Your task to perform on an android device: clear history in the chrome app Image 0: 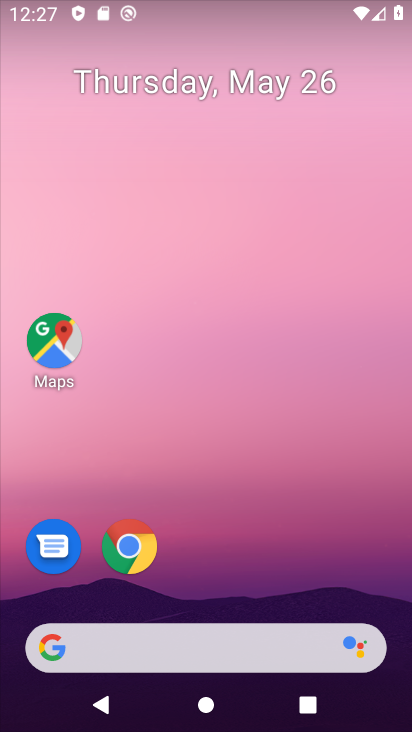
Step 0: drag from (394, 649) to (263, 66)
Your task to perform on an android device: clear history in the chrome app Image 1: 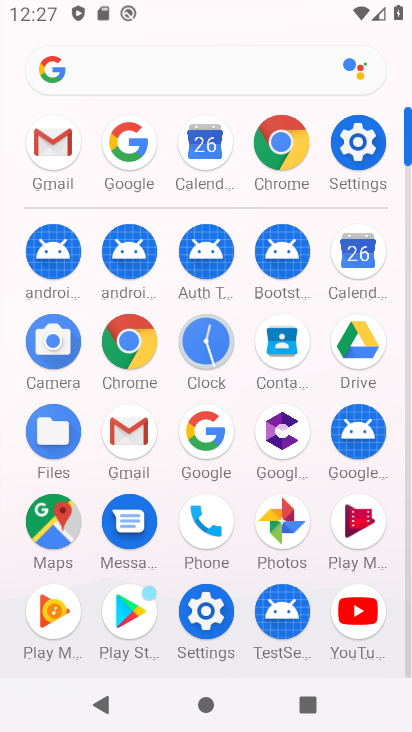
Step 1: click (129, 320)
Your task to perform on an android device: clear history in the chrome app Image 2: 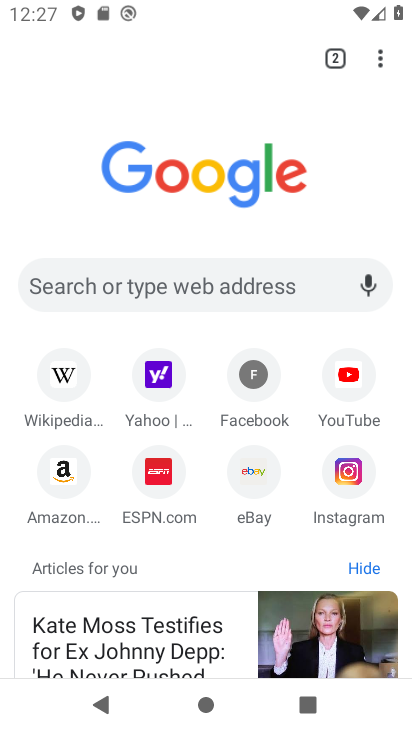
Step 2: click (380, 56)
Your task to perform on an android device: clear history in the chrome app Image 3: 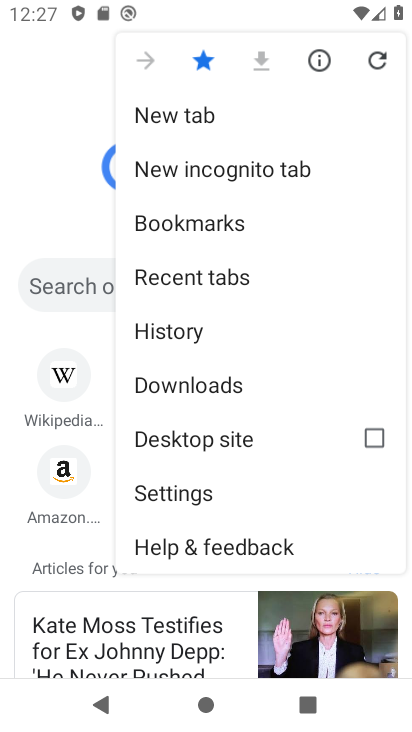
Step 3: click (215, 340)
Your task to perform on an android device: clear history in the chrome app Image 4: 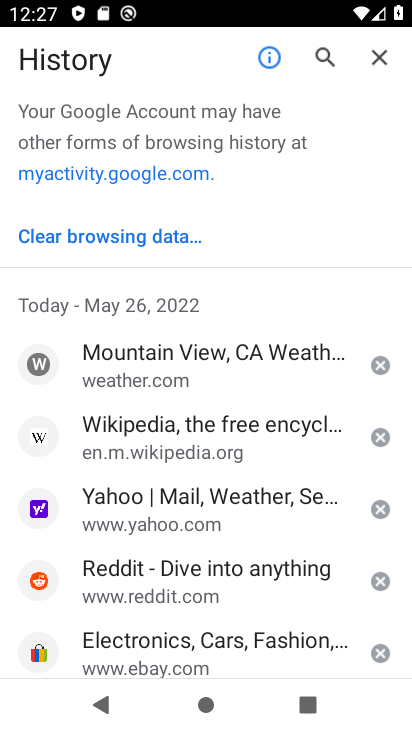
Step 4: click (134, 251)
Your task to perform on an android device: clear history in the chrome app Image 5: 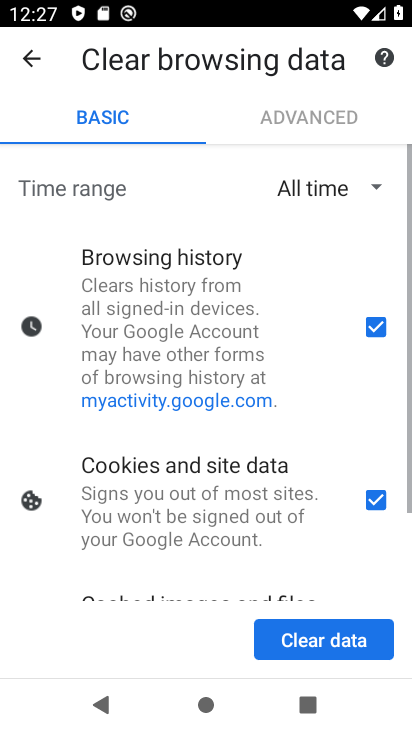
Step 5: click (323, 638)
Your task to perform on an android device: clear history in the chrome app Image 6: 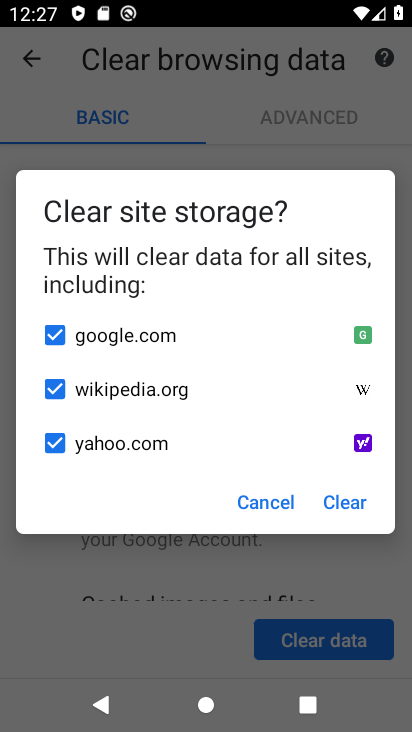
Step 6: click (352, 498)
Your task to perform on an android device: clear history in the chrome app Image 7: 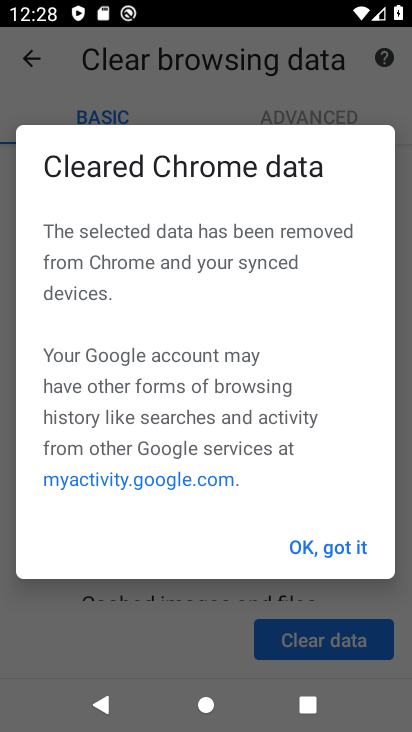
Step 7: click (314, 547)
Your task to perform on an android device: clear history in the chrome app Image 8: 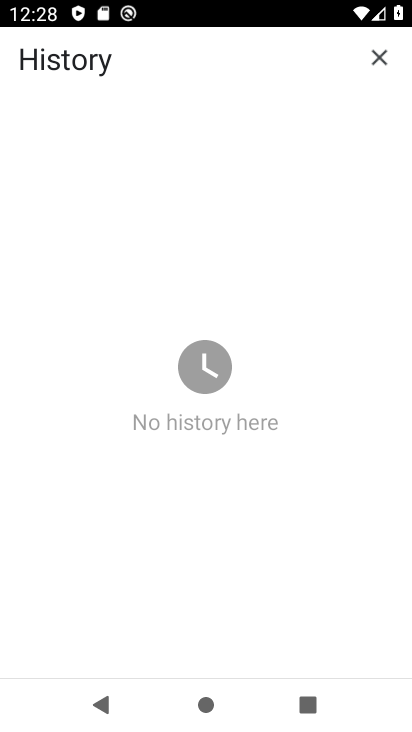
Step 8: task complete